Your task to perform on an android device: Go to Google Image 0: 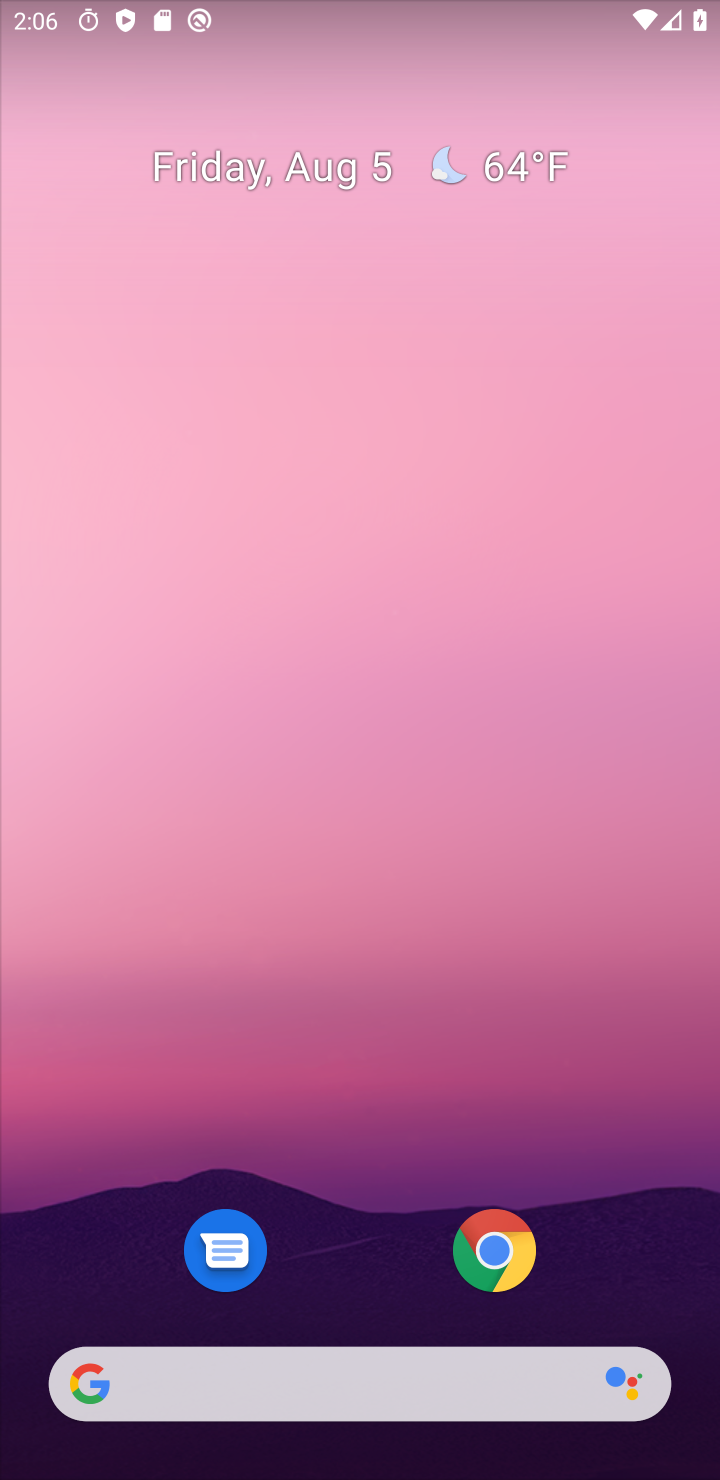
Step 0: click (424, 454)
Your task to perform on an android device: Go to Google Image 1: 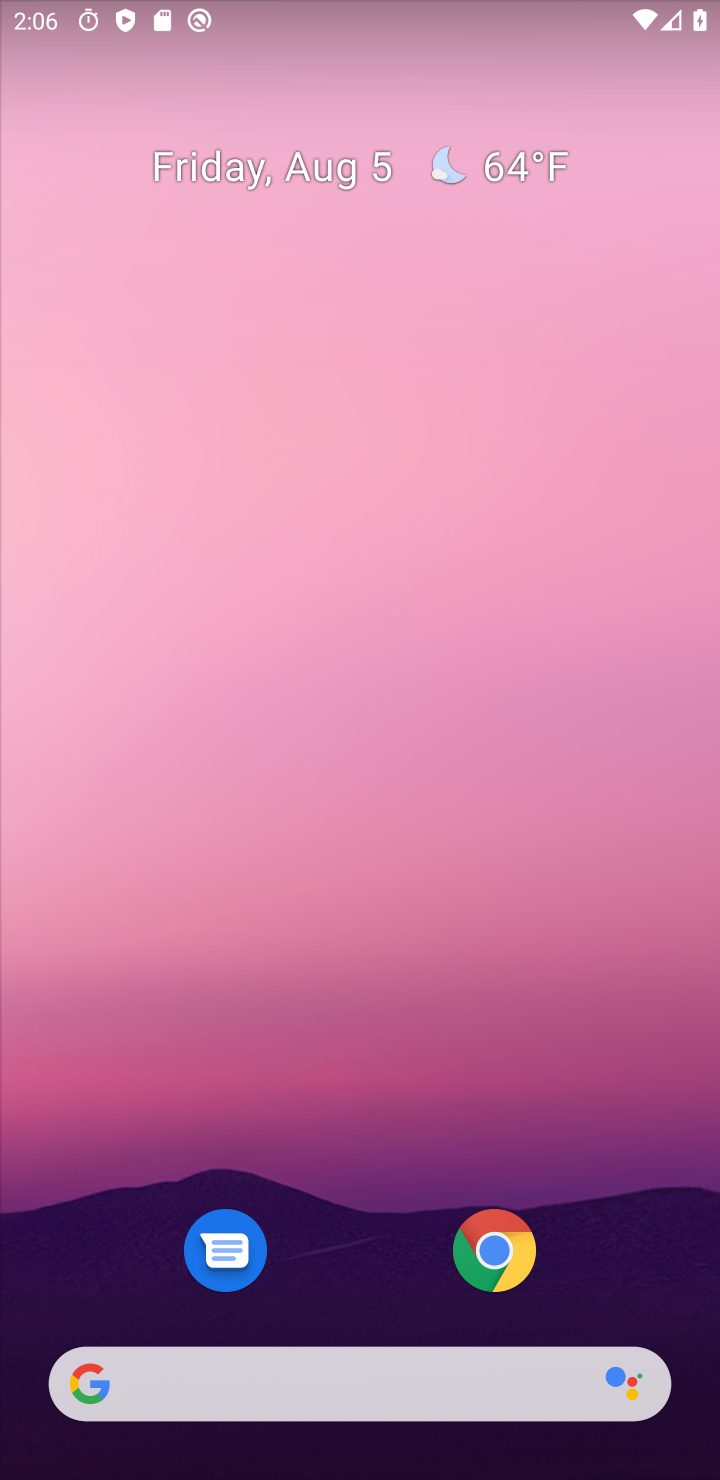
Step 1: drag from (343, 764) to (444, 288)
Your task to perform on an android device: Go to Google Image 2: 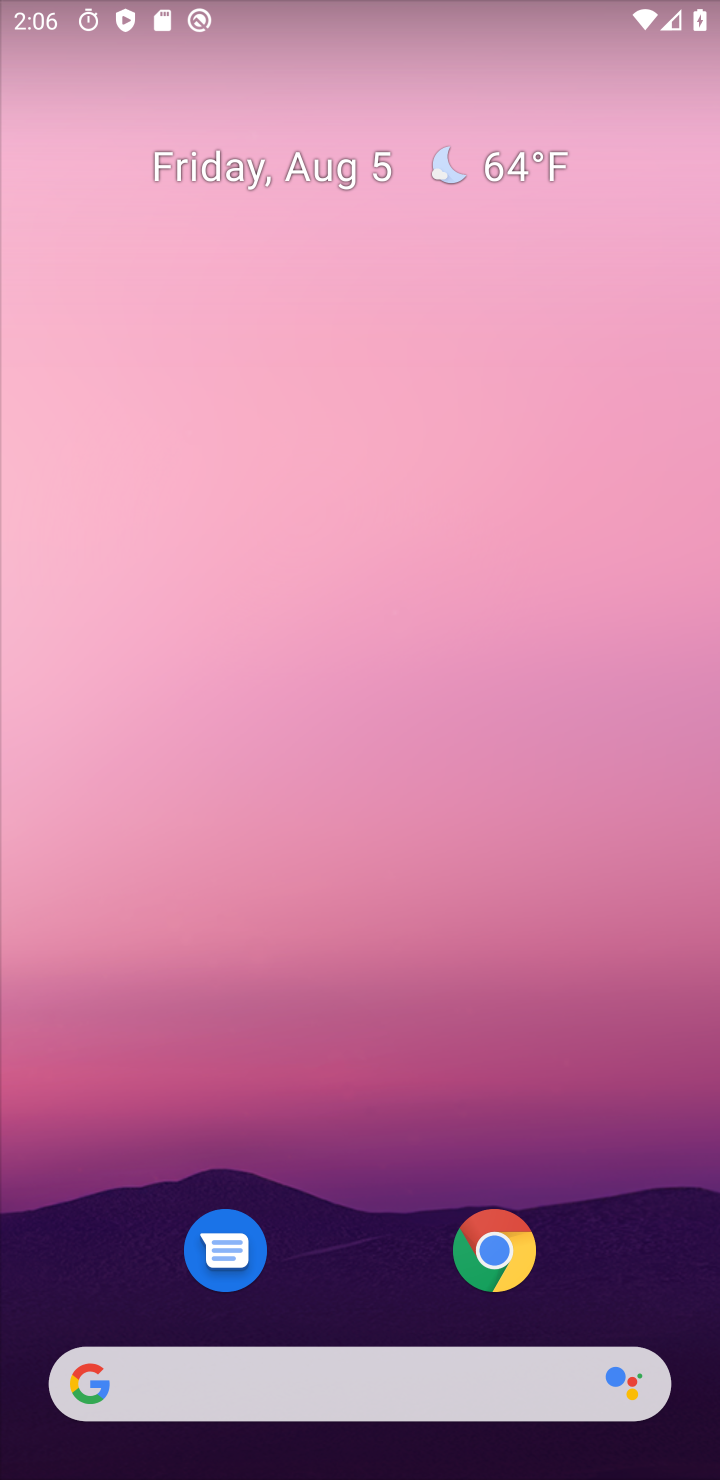
Step 2: drag from (335, 1142) to (512, 48)
Your task to perform on an android device: Go to Google Image 3: 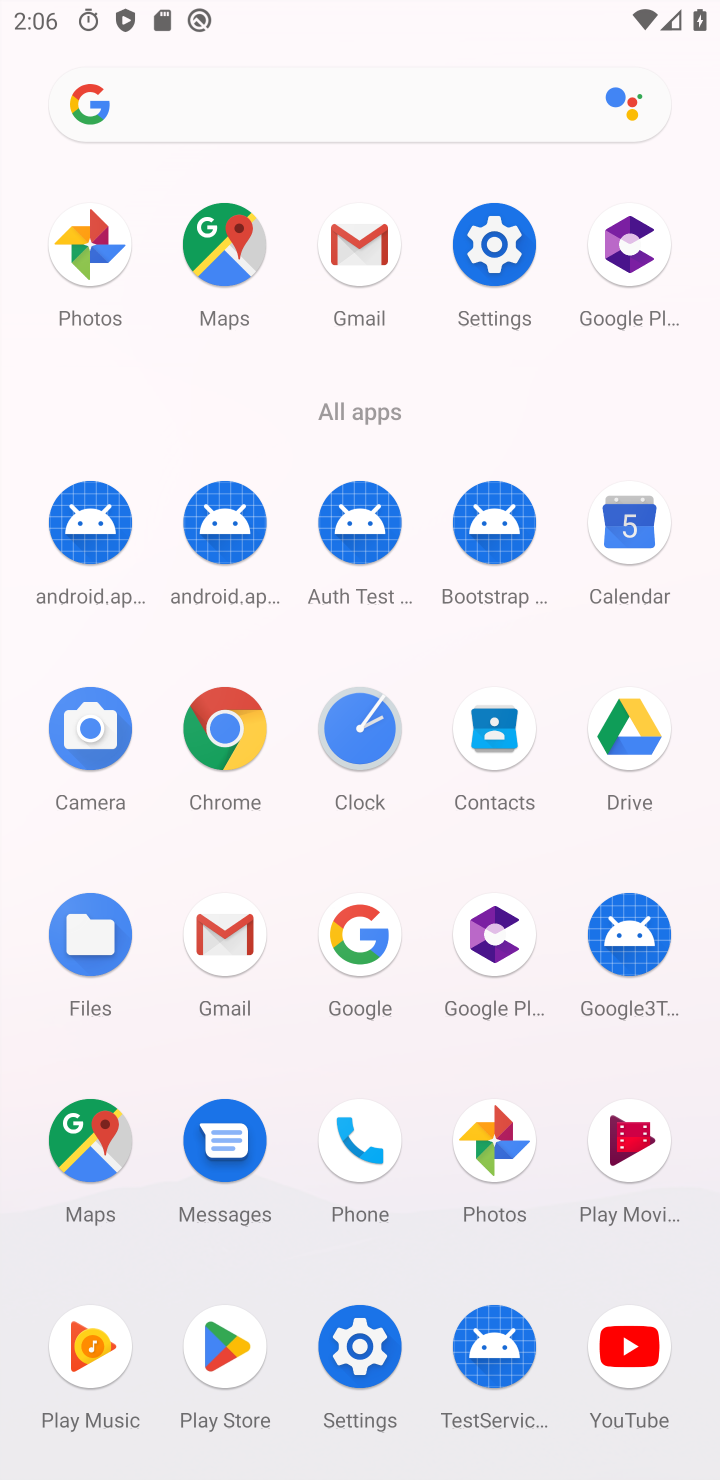
Step 3: click (355, 900)
Your task to perform on an android device: Go to Google Image 4: 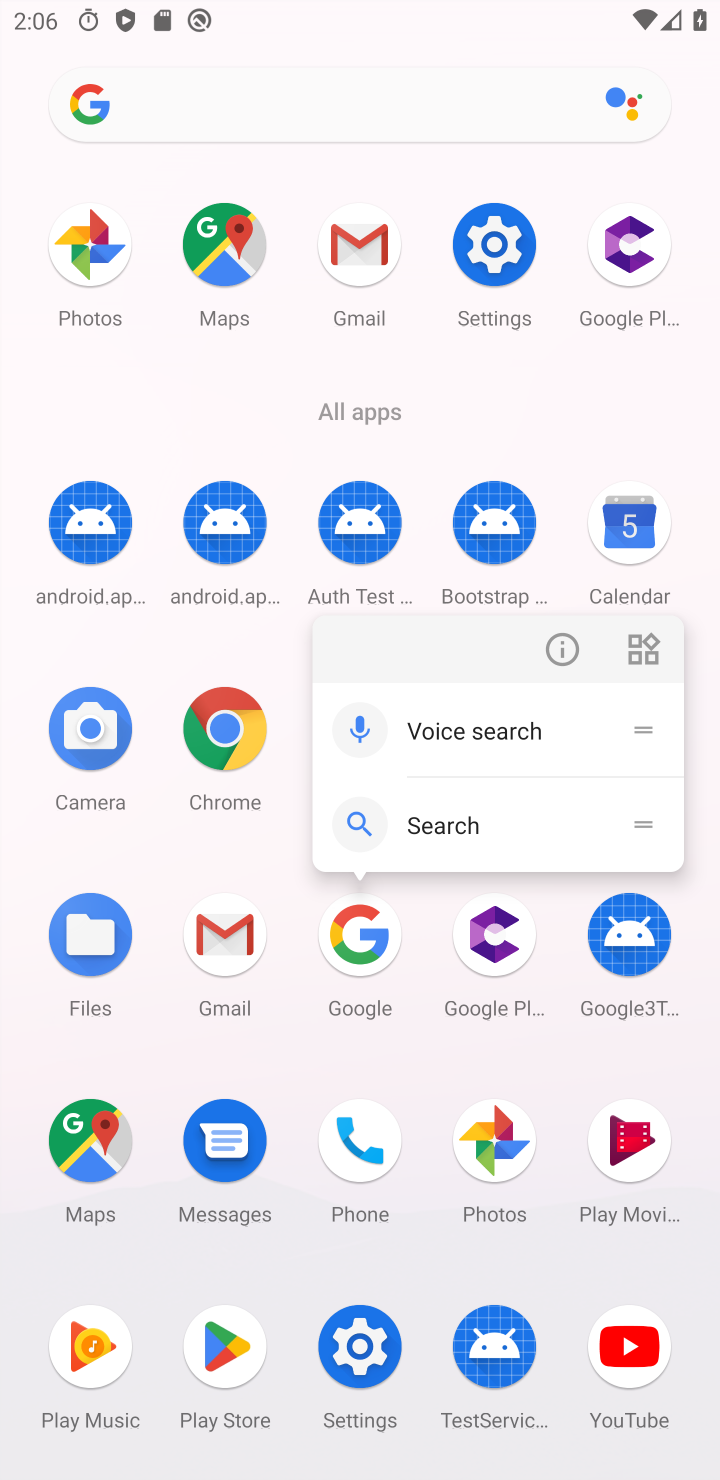
Step 4: click (544, 633)
Your task to perform on an android device: Go to Google Image 5: 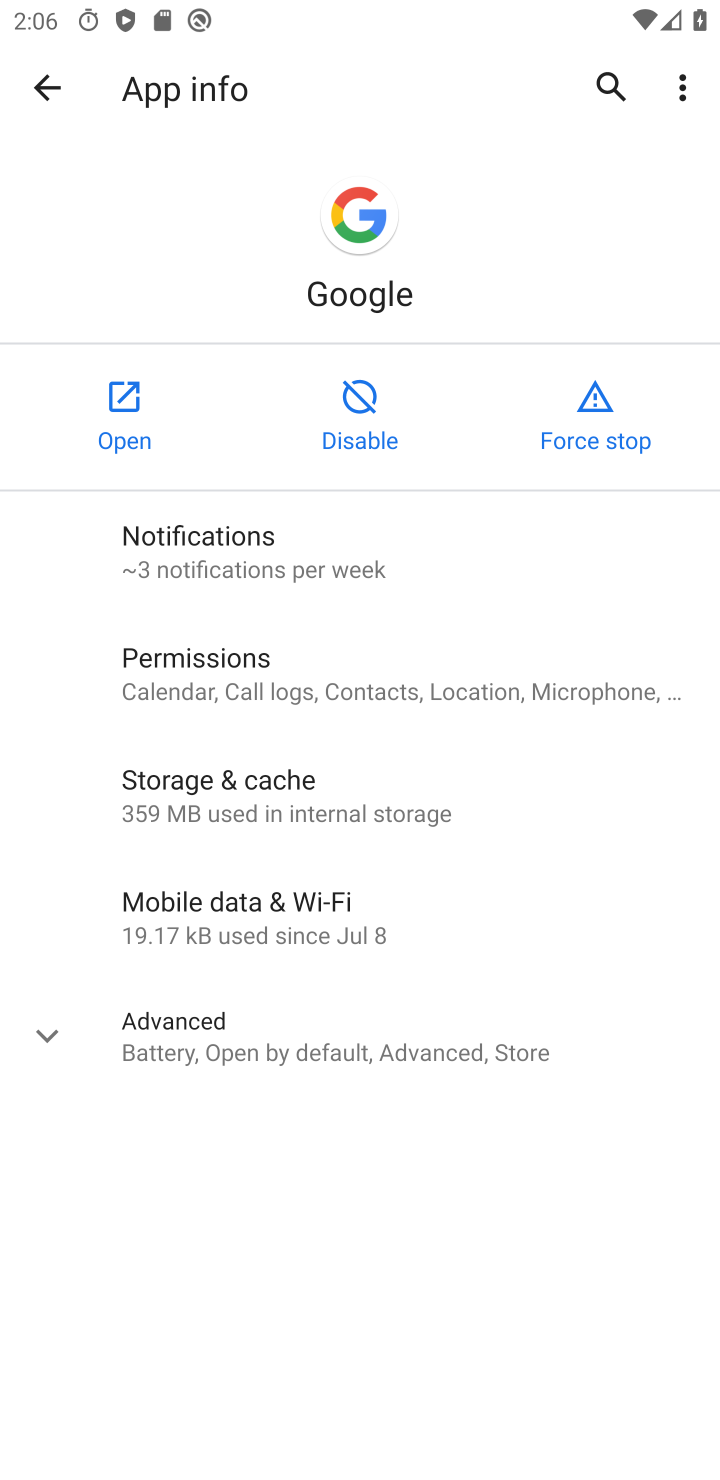
Step 5: click (102, 405)
Your task to perform on an android device: Go to Google Image 6: 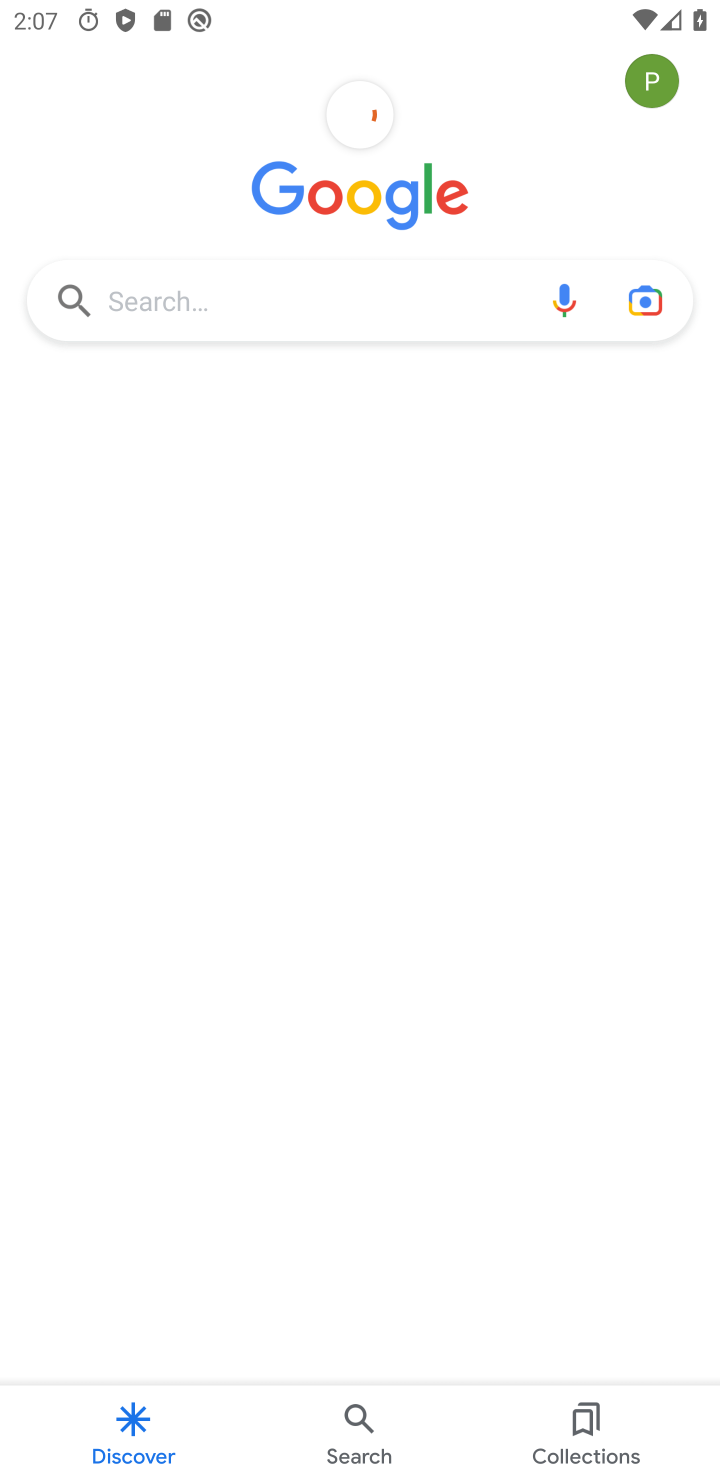
Step 6: drag from (381, 1226) to (420, 441)
Your task to perform on an android device: Go to Google Image 7: 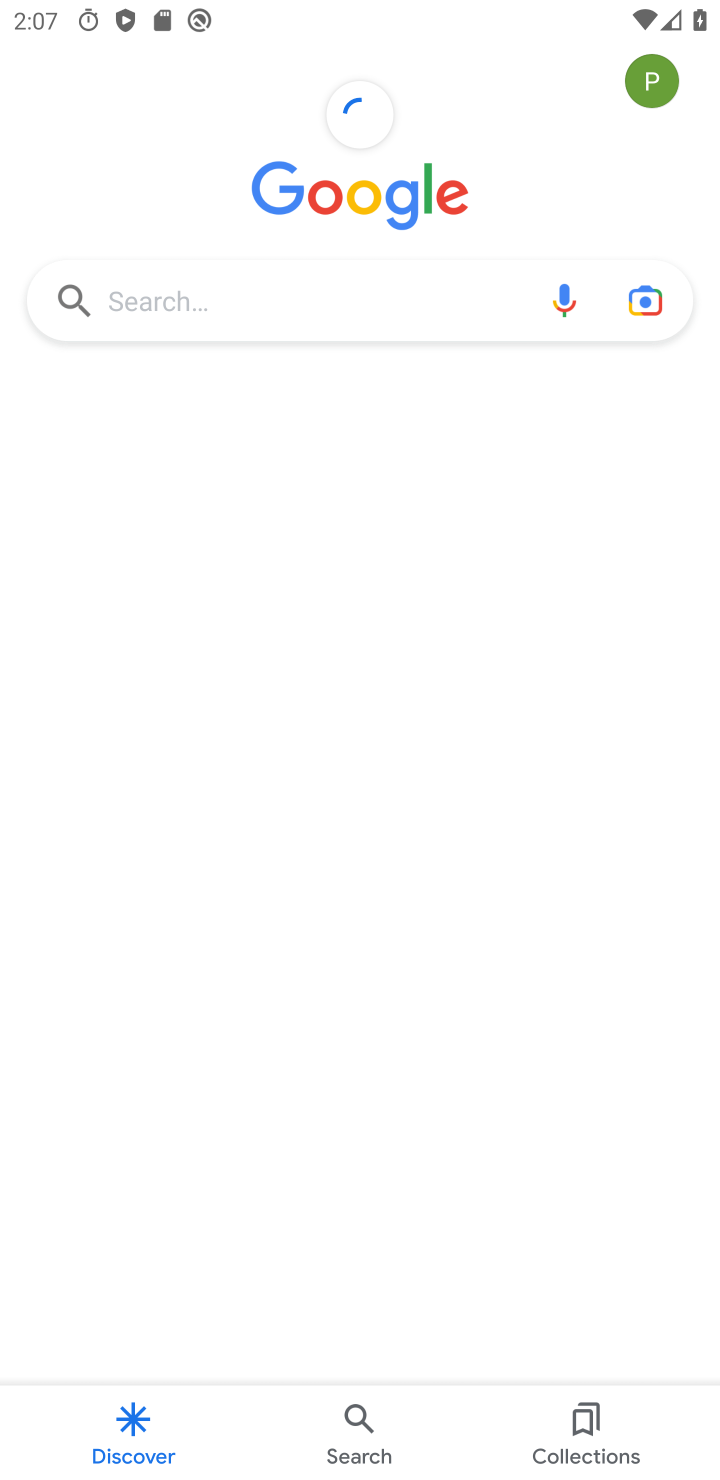
Step 7: click (513, 470)
Your task to perform on an android device: Go to Google Image 8: 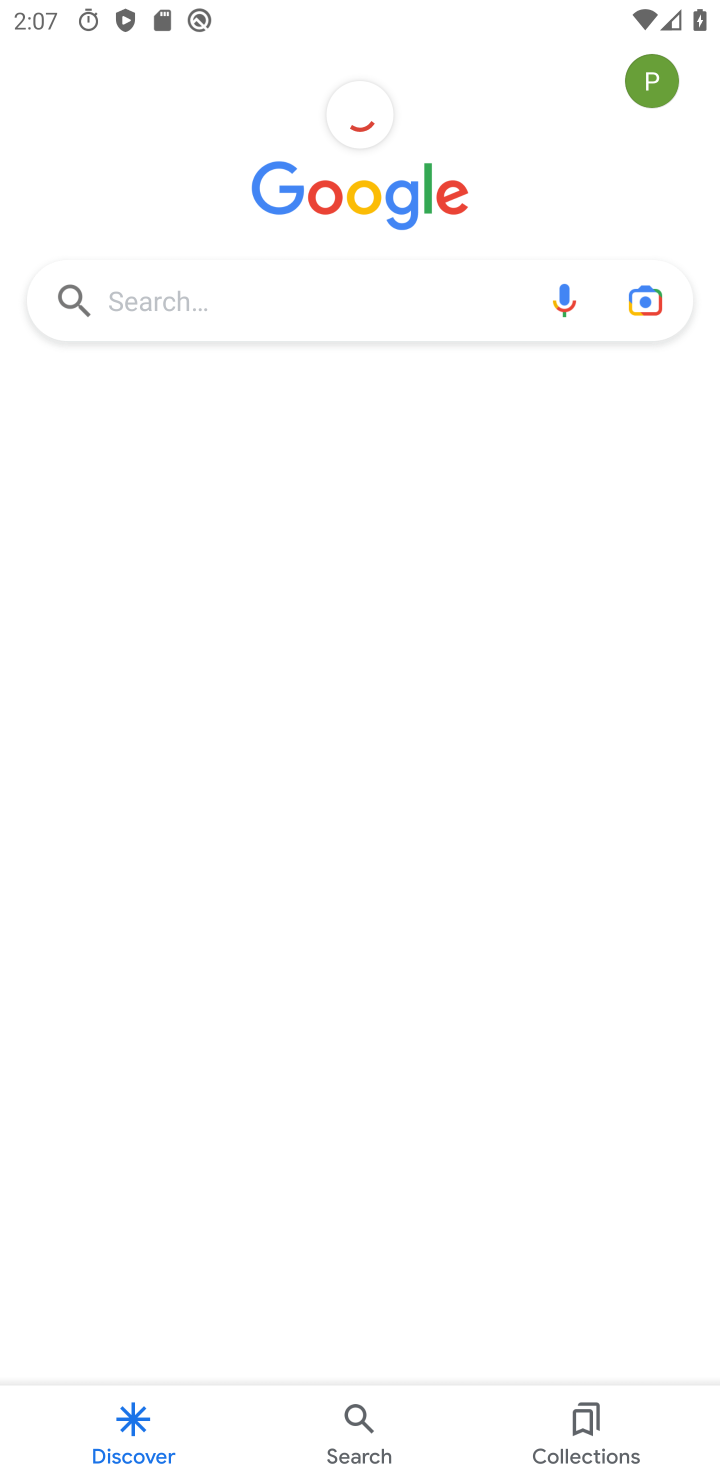
Step 8: task complete